Your task to perform on an android device: Open maps Image 0: 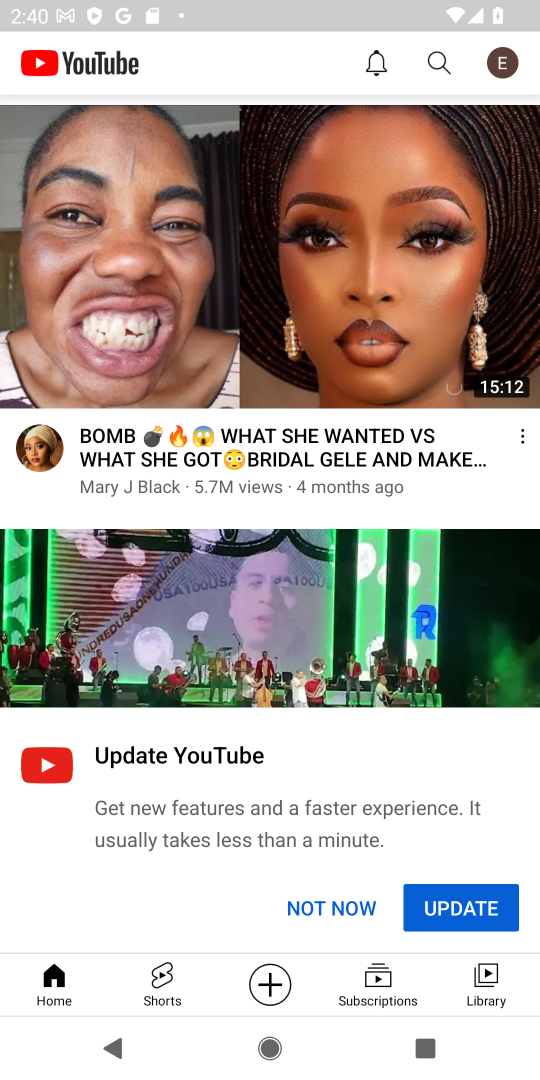
Step 0: press back button
Your task to perform on an android device: Open maps Image 1: 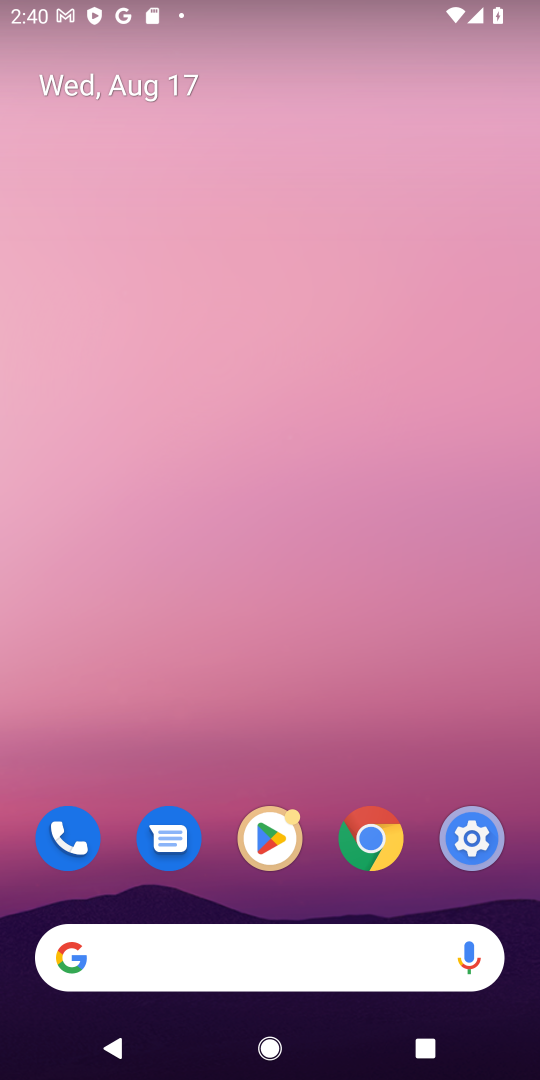
Step 1: drag from (329, 866) to (403, 108)
Your task to perform on an android device: Open maps Image 2: 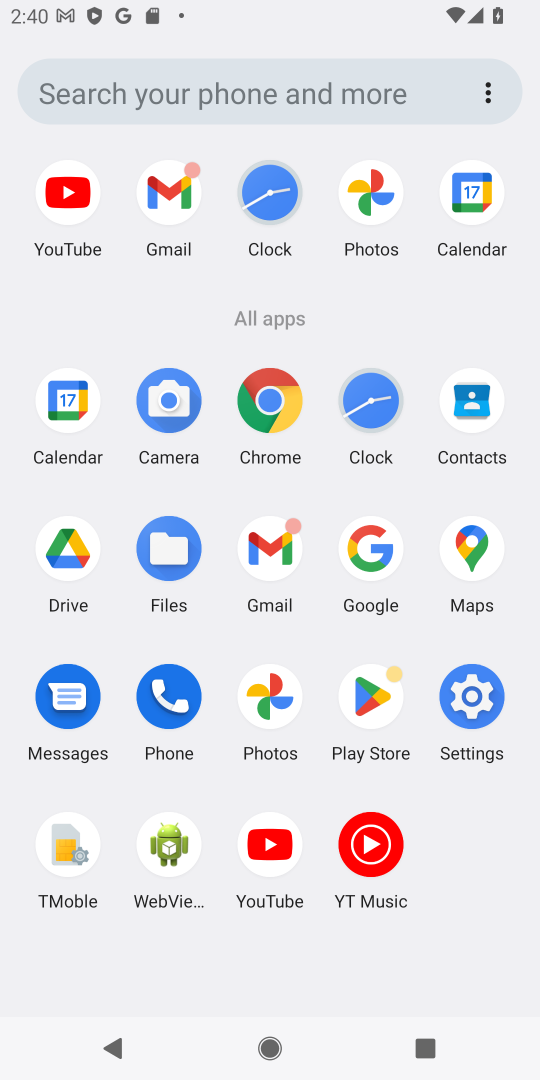
Step 2: click (467, 562)
Your task to perform on an android device: Open maps Image 3: 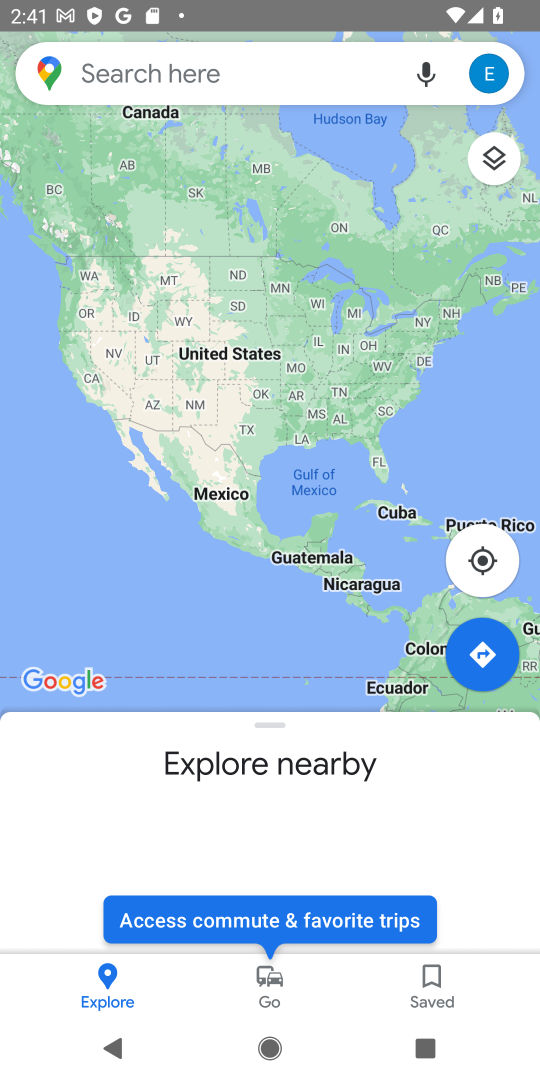
Step 3: task complete